Your task to perform on an android device: Search for razer naga on costco.com, select the first entry, add it to the cart, then select checkout. Image 0: 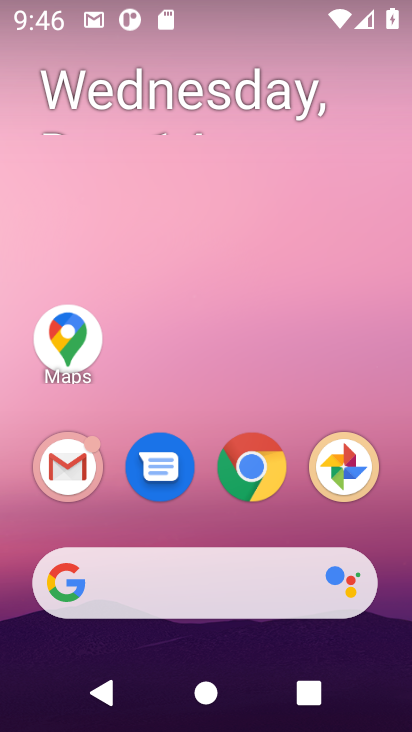
Step 0: click (268, 487)
Your task to perform on an android device: Search for razer naga on costco.com, select the first entry, add it to the cart, then select checkout. Image 1: 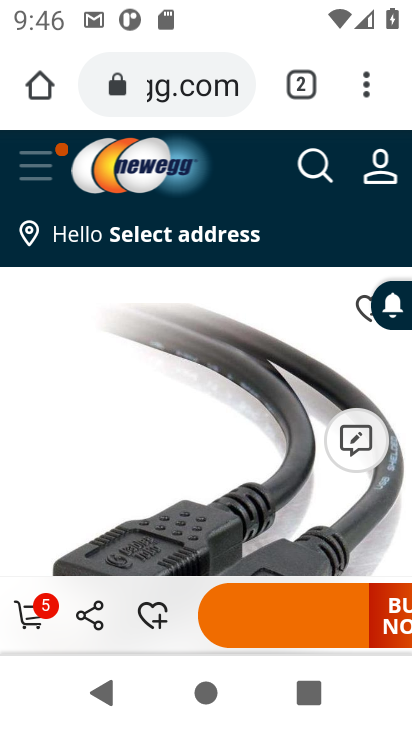
Step 1: click (161, 99)
Your task to perform on an android device: Search for razer naga on costco.com, select the first entry, add it to the cart, then select checkout. Image 2: 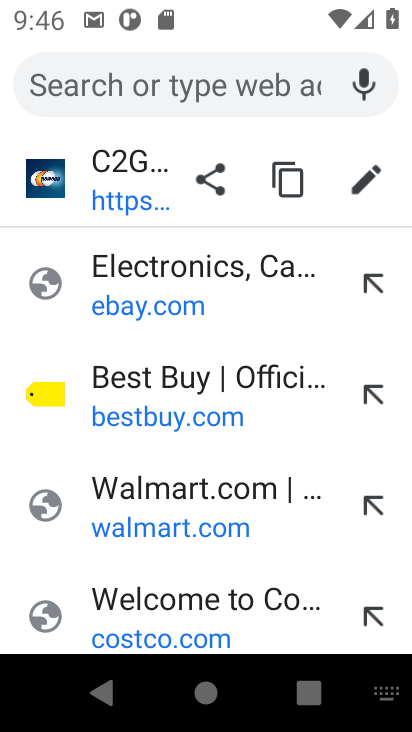
Step 2: click (123, 284)
Your task to perform on an android device: Search for razer naga on costco.com, select the first entry, add it to the cart, then select checkout. Image 3: 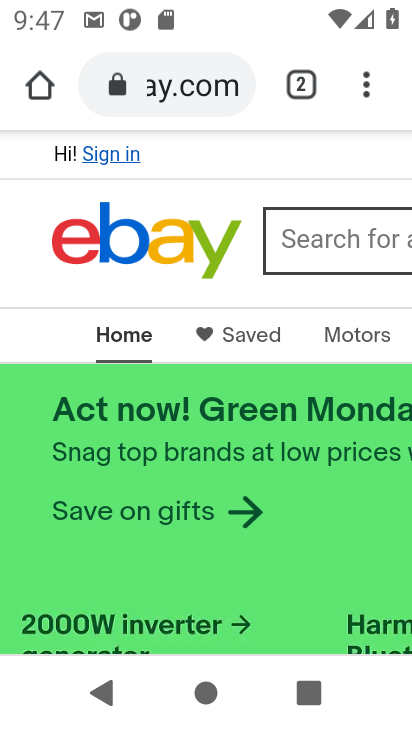
Step 3: click (191, 108)
Your task to perform on an android device: Search for razer naga on costco.com, select the first entry, add it to the cart, then select checkout. Image 4: 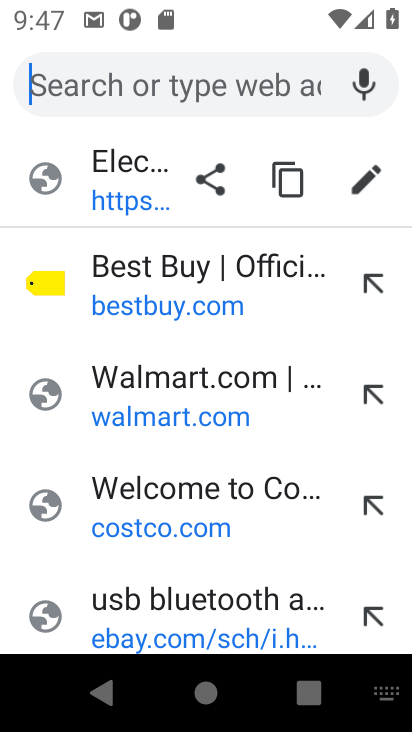
Step 4: click (191, 531)
Your task to perform on an android device: Search for razer naga on costco.com, select the first entry, add it to the cart, then select checkout. Image 5: 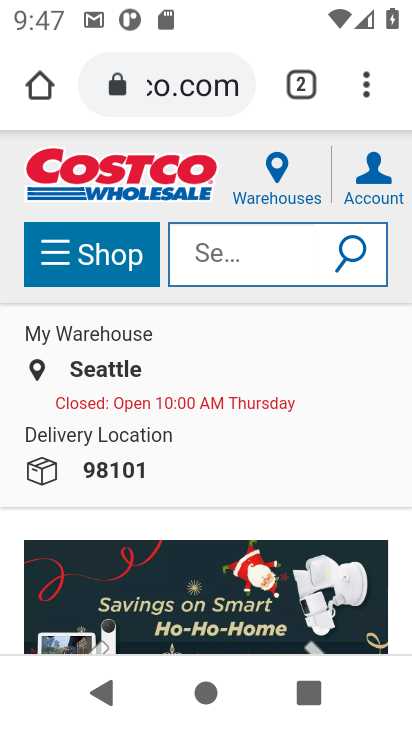
Step 5: task complete